Your task to perform on an android device: What's on my calendar tomorrow? Image 0: 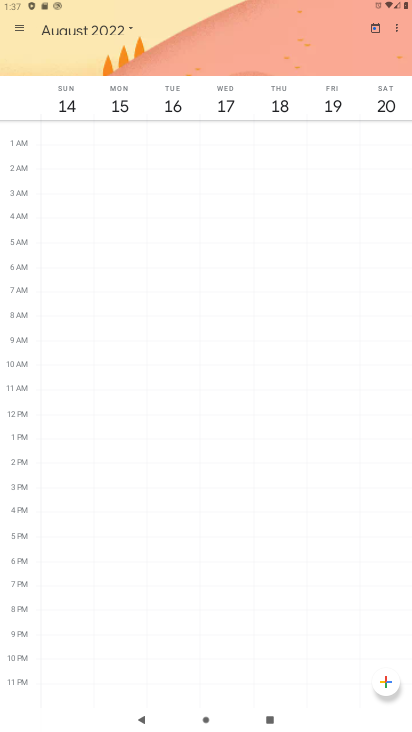
Step 0: press home button
Your task to perform on an android device: What's on my calendar tomorrow? Image 1: 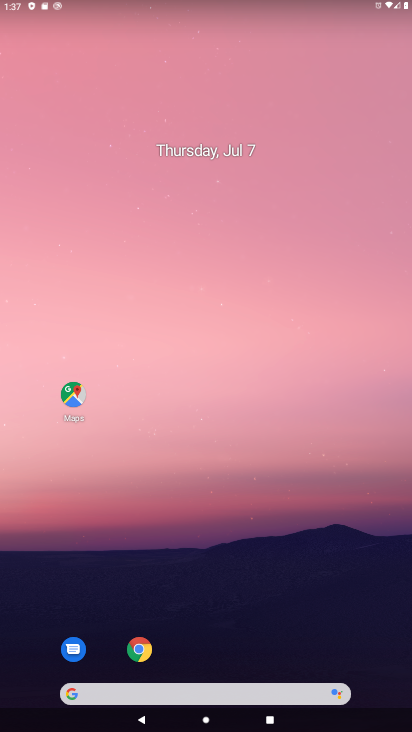
Step 1: drag from (385, 684) to (344, 32)
Your task to perform on an android device: What's on my calendar tomorrow? Image 2: 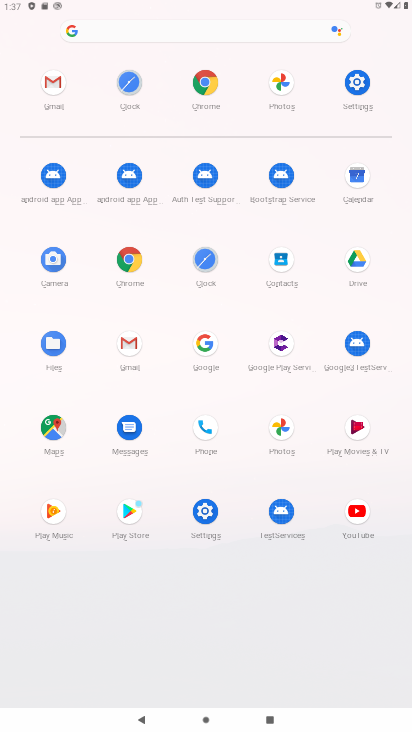
Step 2: click (360, 179)
Your task to perform on an android device: What's on my calendar tomorrow? Image 3: 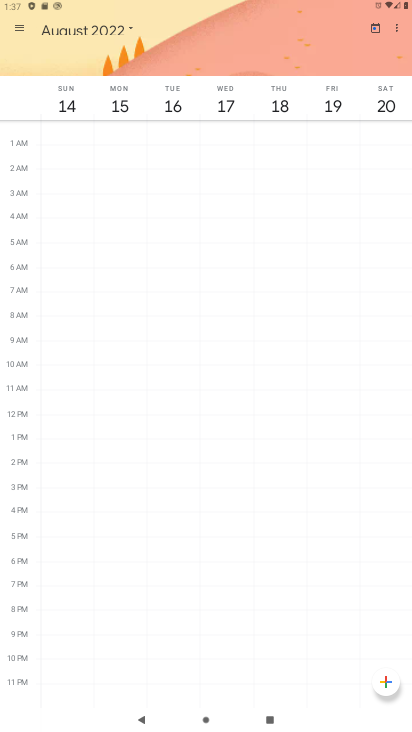
Step 3: click (17, 27)
Your task to perform on an android device: What's on my calendar tomorrow? Image 4: 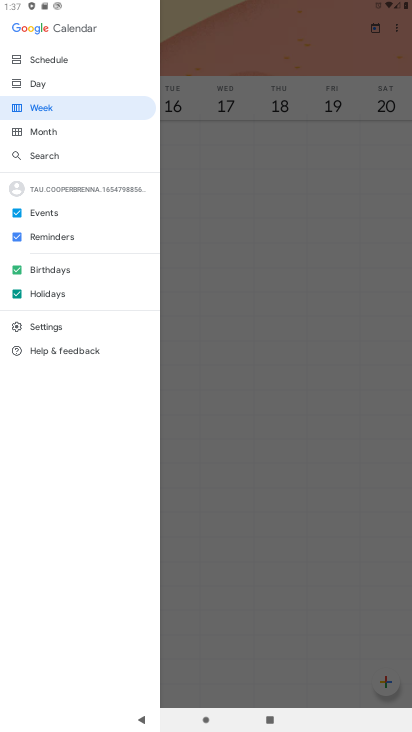
Step 4: click (35, 85)
Your task to perform on an android device: What's on my calendar tomorrow? Image 5: 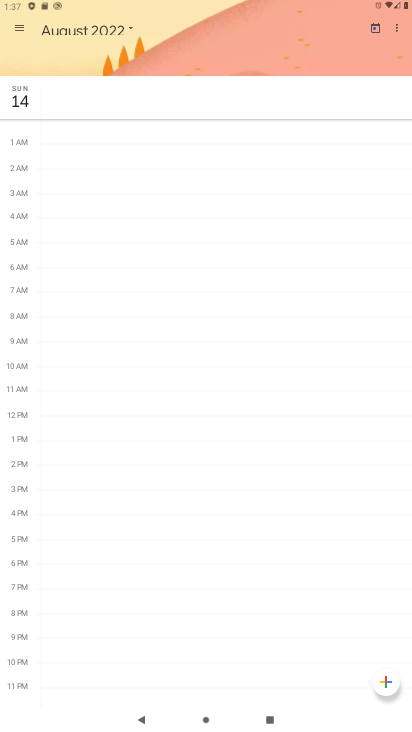
Step 5: click (132, 24)
Your task to perform on an android device: What's on my calendar tomorrow? Image 6: 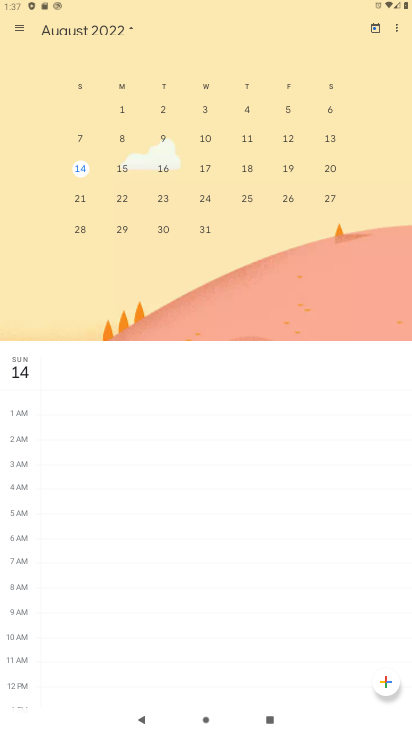
Step 6: drag from (73, 199) to (321, 192)
Your task to perform on an android device: What's on my calendar tomorrow? Image 7: 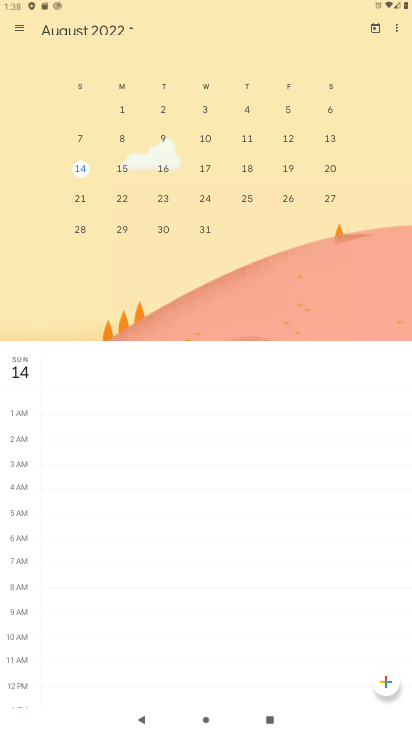
Step 7: drag from (80, 197) to (332, 194)
Your task to perform on an android device: What's on my calendar tomorrow? Image 8: 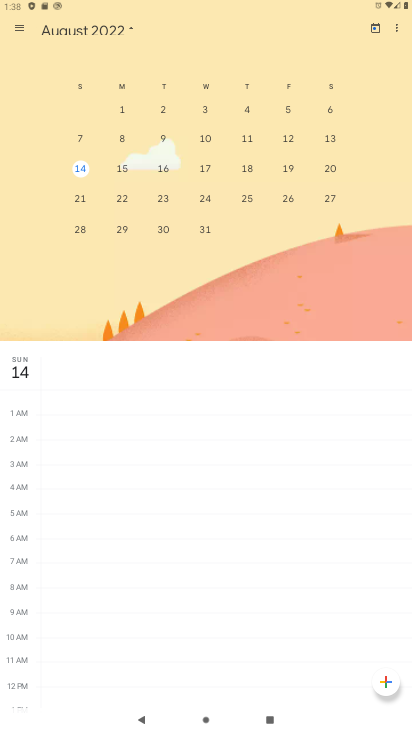
Step 8: drag from (78, 214) to (358, 140)
Your task to perform on an android device: What's on my calendar tomorrow? Image 9: 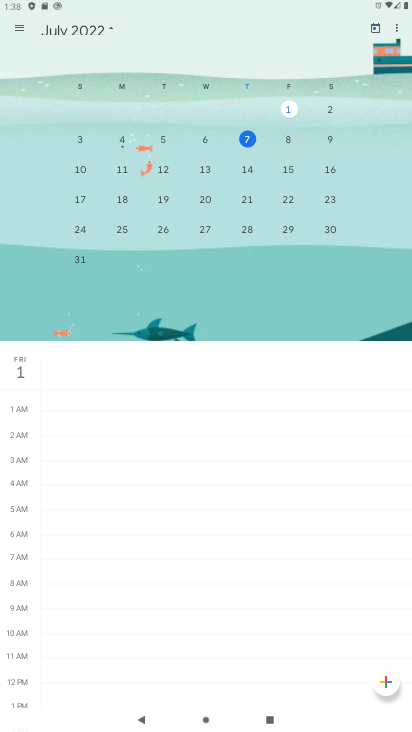
Step 9: click (294, 137)
Your task to perform on an android device: What's on my calendar tomorrow? Image 10: 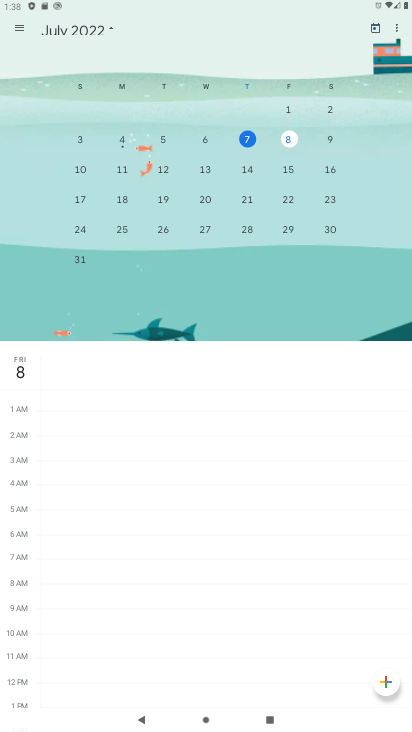
Step 10: task complete